Your task to perform on an android device: Open eBay Image 0: 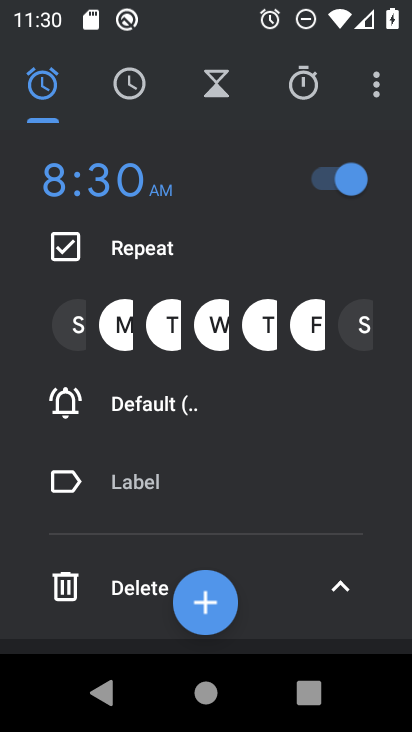
Step 0: press home button
Your task to perform on an android device: Open eBay Image 1: 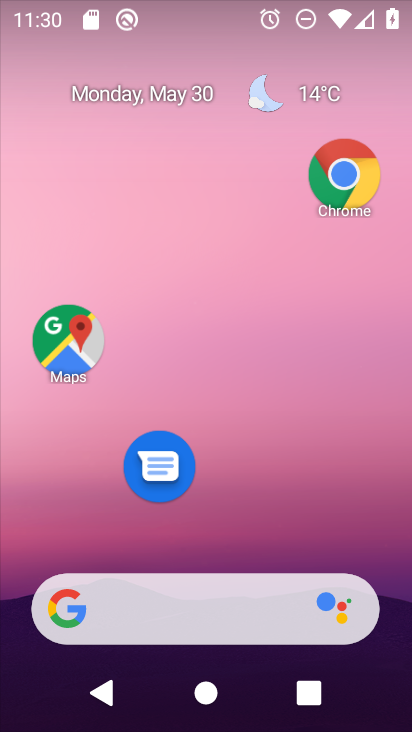
Step 1: click (351, 180)
Your task to perform on an android device: Open eBay Image 2: 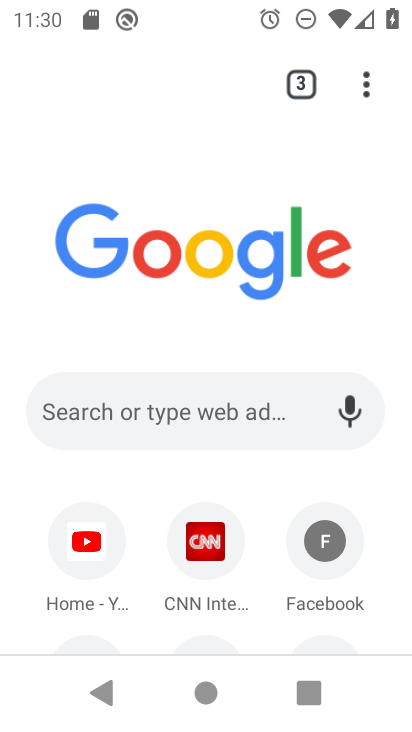
Step 2: drag from (239, 562) to (280, 262)
Your task to perform on an android device: Open eBay Image 3: 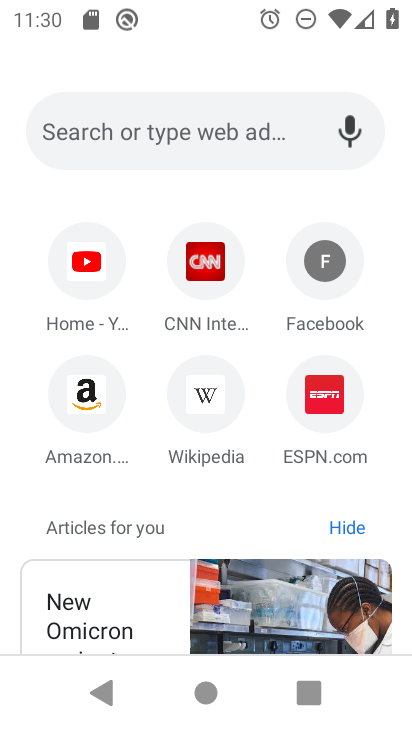
Step 3: click (298, 189)
Your task to perform on an android device: Open eBay Image 4: 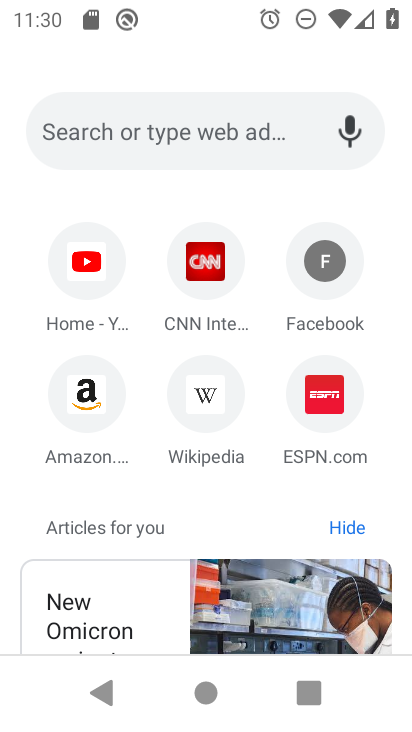
Step 4: drag from (306, 206) to (311, 521)
Your task to perform on an android device: Open eBay Image 5: 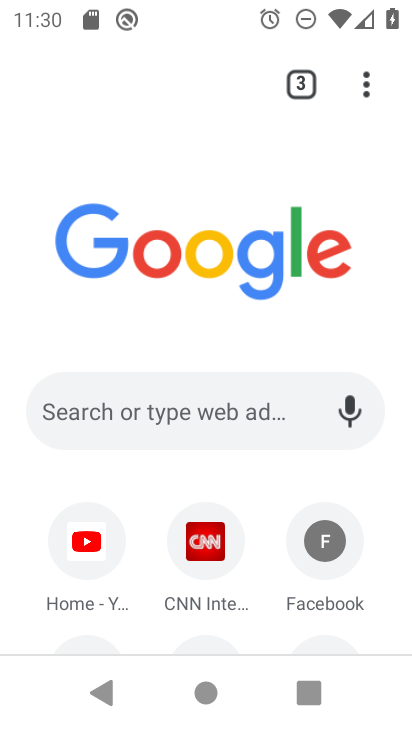
Step 5: click (297, 81)
Your task to perform on an android device: Open eBay Image 6: 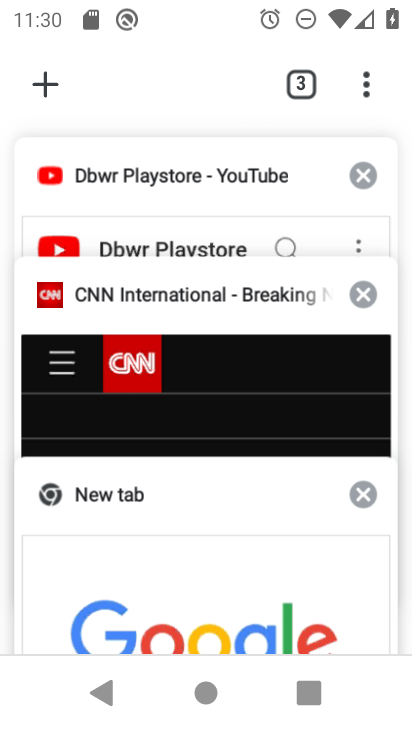
Step 6: drag from (195, 193) to (223, 505)
Your task to perform on an android device: Open eBay Image 7: 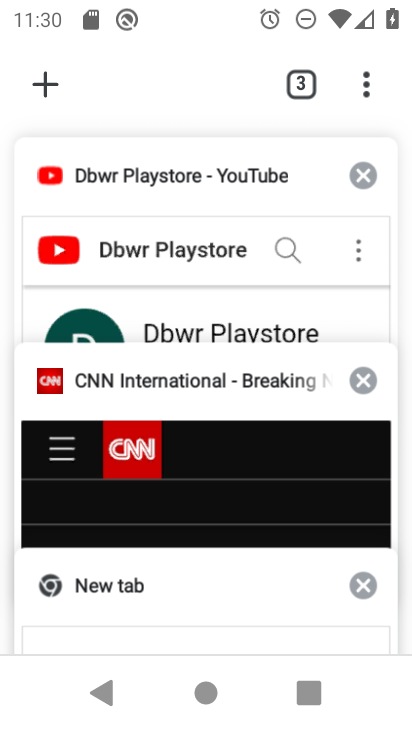
Step 7: click (37, 79)
Your task to perform on an android device: Open eBay Image 8: 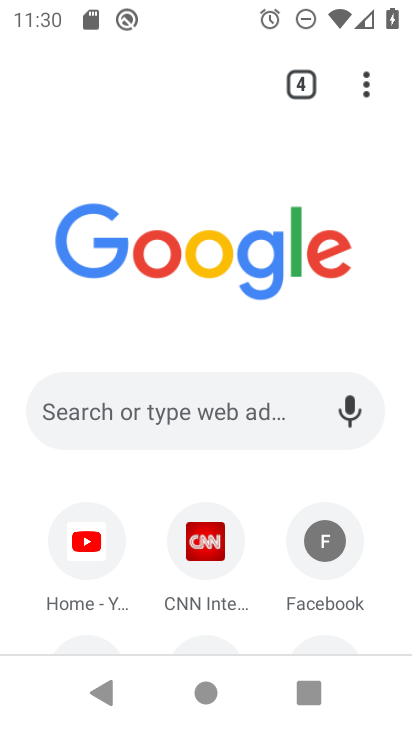
Step 8: click (305, 82)
Your task to perform on an android device: Open eBay Image 9: 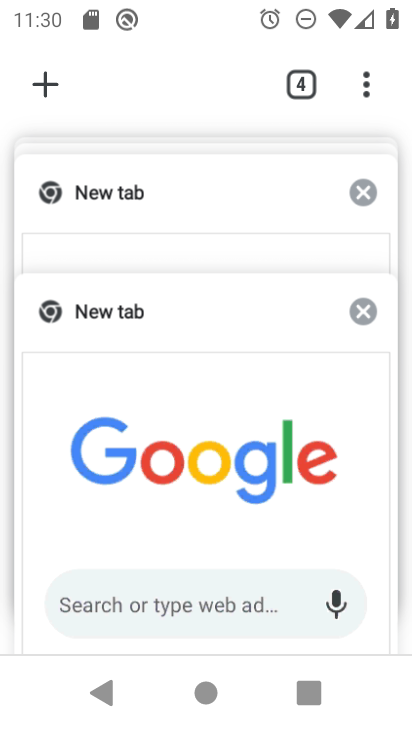
Step 9: click (206, 218)
Your task to perform on an android device: Open eBay Image 10: 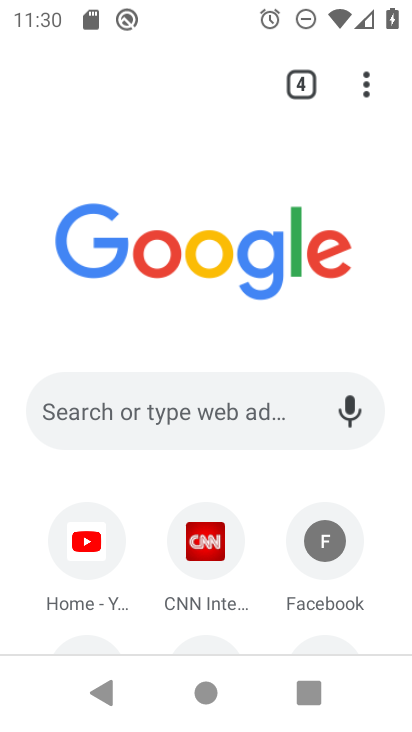
Step 10: click (209, 402)
Your task to perform on an android device: Open eBay Image 11: 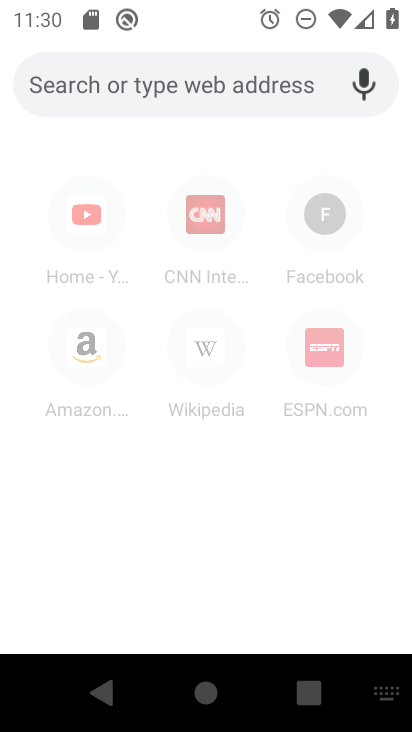
Step 11: type "ebay.com"
Your task to perform on an android device: Open eBay Image 12: 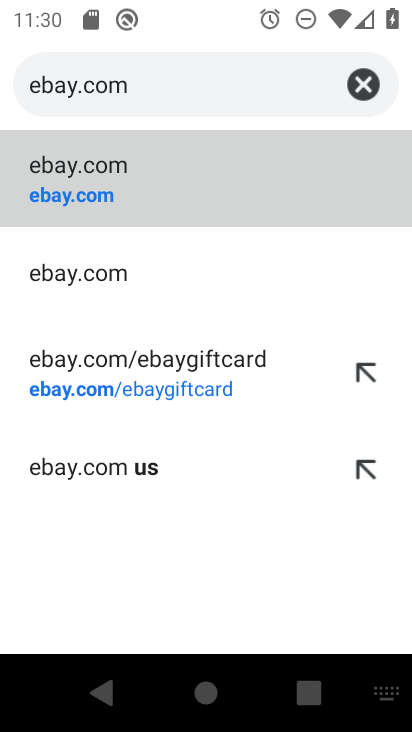
Step 12: click (311, 167)
Your task to perform on an android device: Open eBay Image 13: 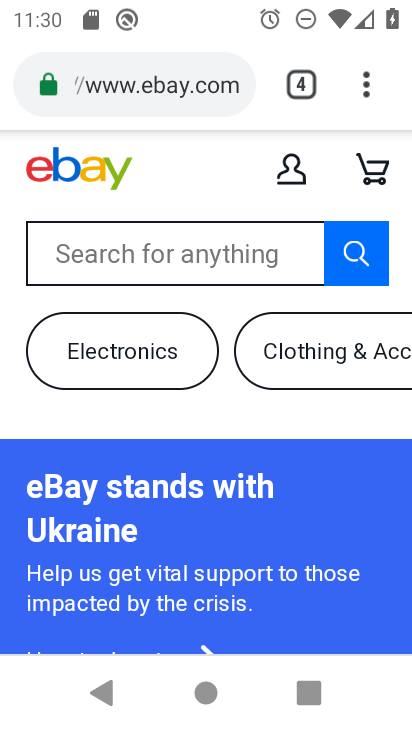
Step 13: task complete